Your task to perform on an android device: find snoozed emails in the gmail app Image 0: 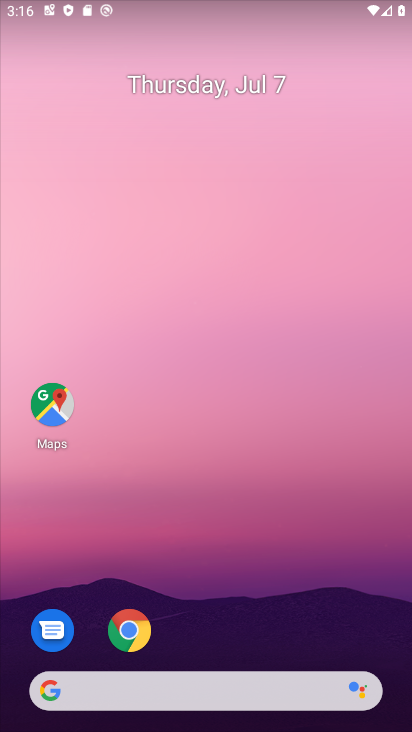
Step 0: drag from (204, 627) to (283, 110)
Your task to perform on an android device: find snoozed emails in the gmail app Image 1: 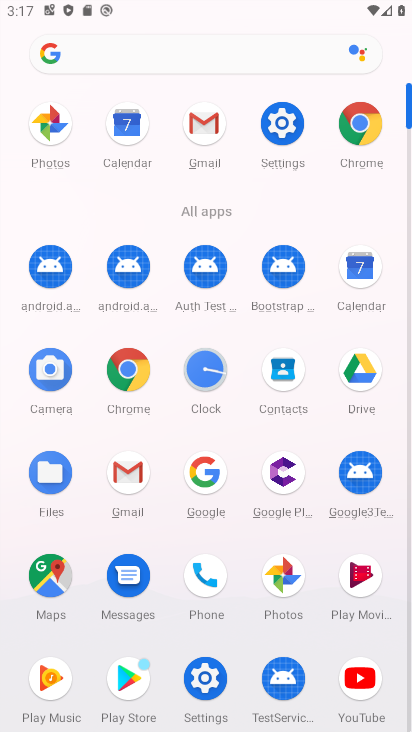
Step 1: click (121, 464)
Your task to perform on an android device: find snoozed emails in the gmail app Image 2: 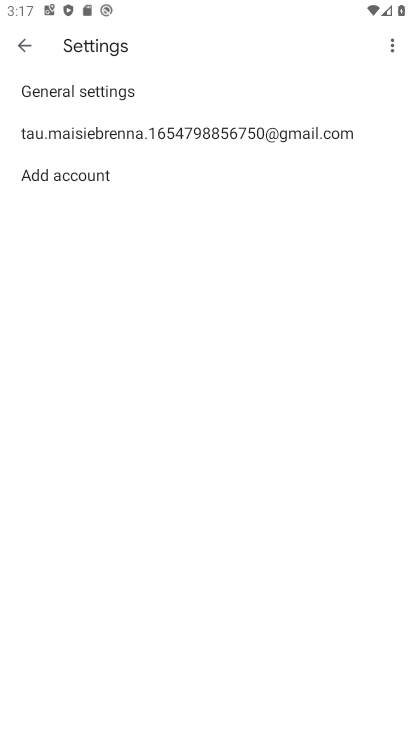
Step 2: click (29, 39)
Your task to perform on an android device: find snoozed emails in the gmail app Image 3: 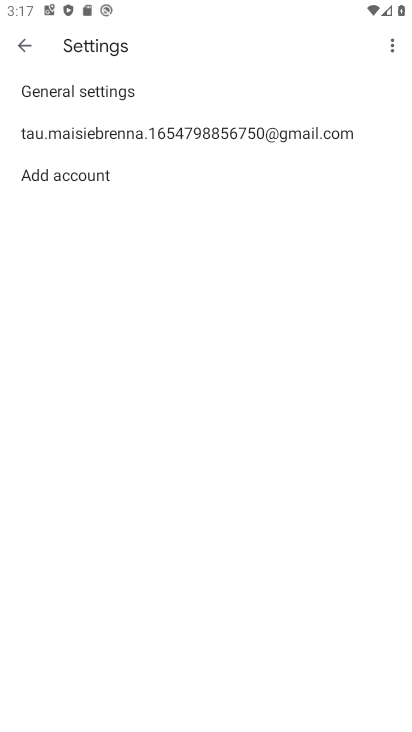
Step 3: click (28, 38)
Your task to perform on an android device: find snoozed emails in the gmail app Image 4: 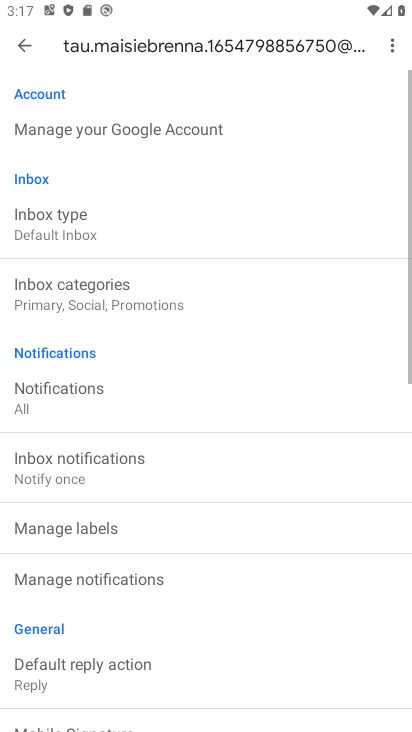
Step 4: click (27, 38)
Your task to perform on an android device: find snoozed emails in the gmail app Image 5: 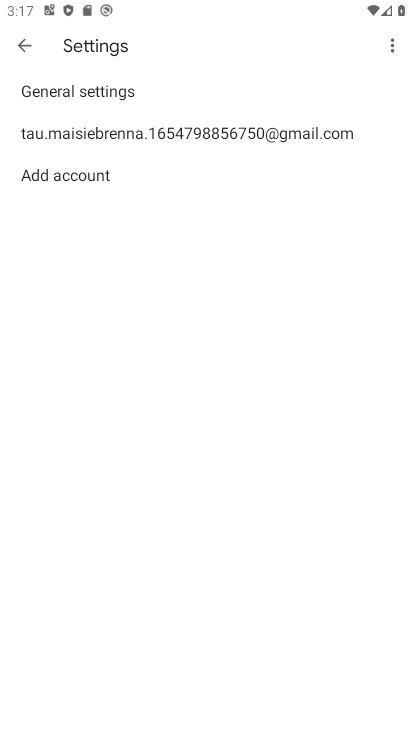
Step 5: click (25, 38)
Your task to perform on an android device: find snoozed emails in the gmail app Image 6: 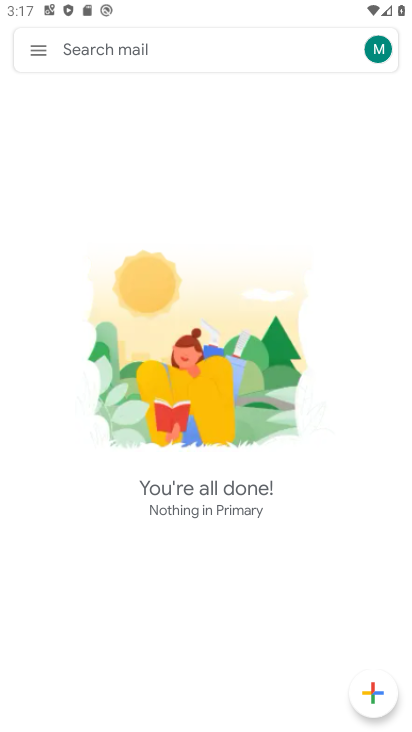
Step 6: click (29, 44)
Your task to perform on an android device: find snoozed emails in the gmail app Image 7: 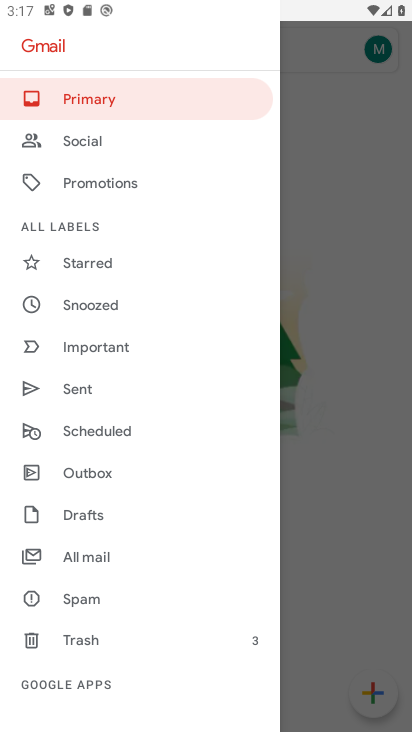
Step 7: click (99, 306)
Your task to perform on an android device: find snoozed emails in the gmail app Image 8: 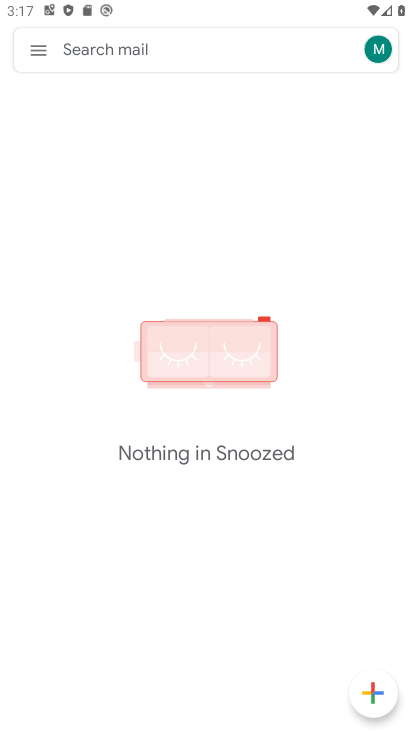
Step 8: task complete